Your task to perform on an android device: Search for "razer deathadder" on amazon, select the first entry, add it to the cart, then select checkout. Image 0: 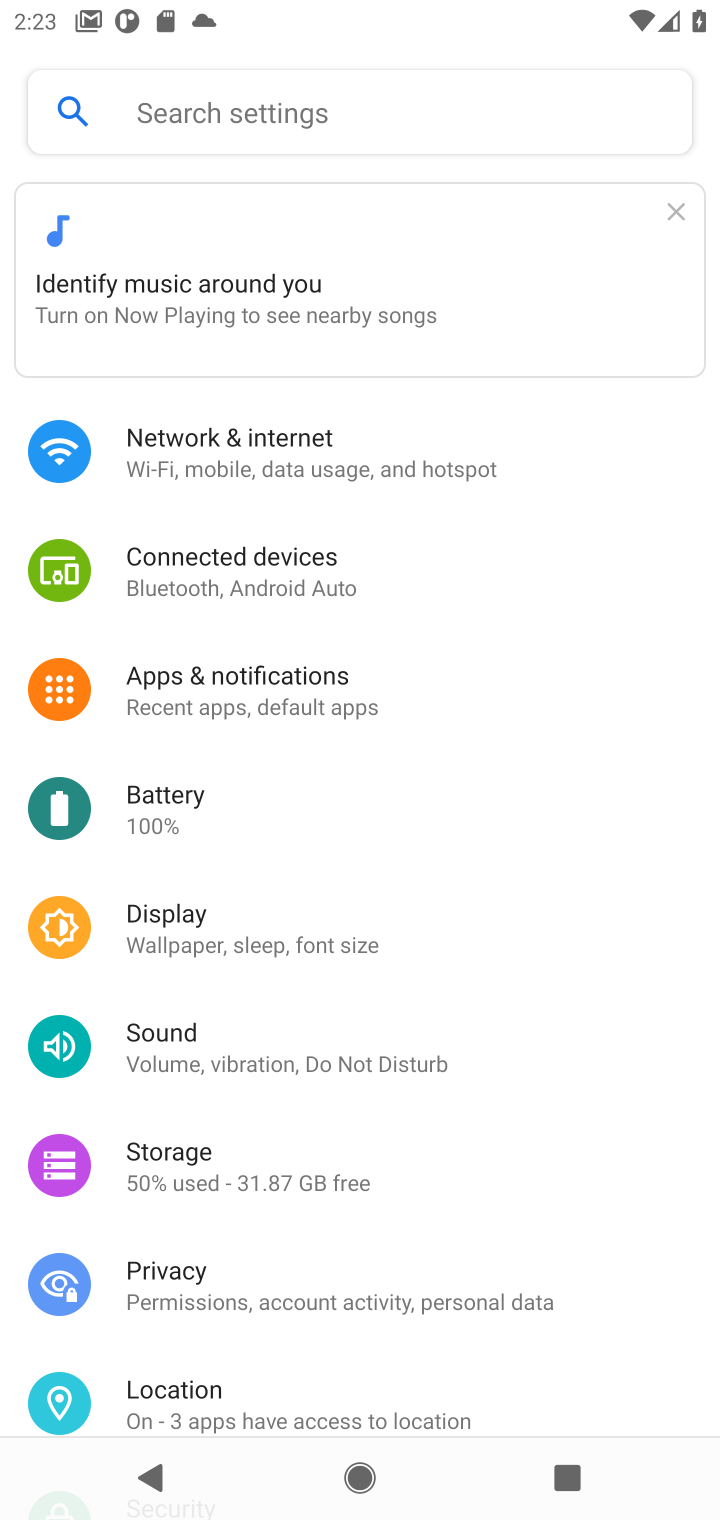
Step 0: press home button
Your task to perform on an android device: Search for "razer deathadder" on amazon, select the first entry, add it to the cart, then select checkout. Image 1: 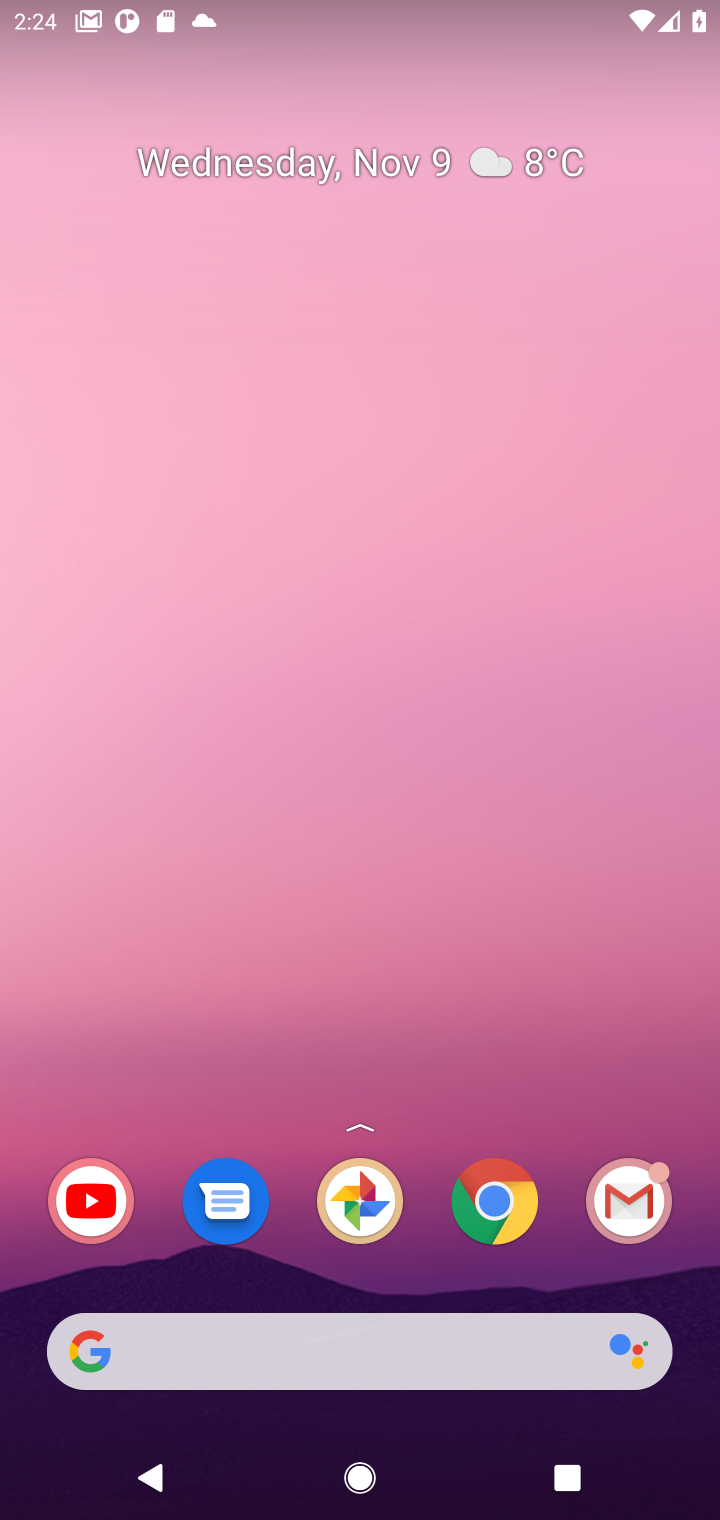
Step 1: click (296, 1356)
Your task to perform on an android device: Search for "razer deathadder" on amazon, select the first entry, add it to the cart, then select checkout. Image 2: 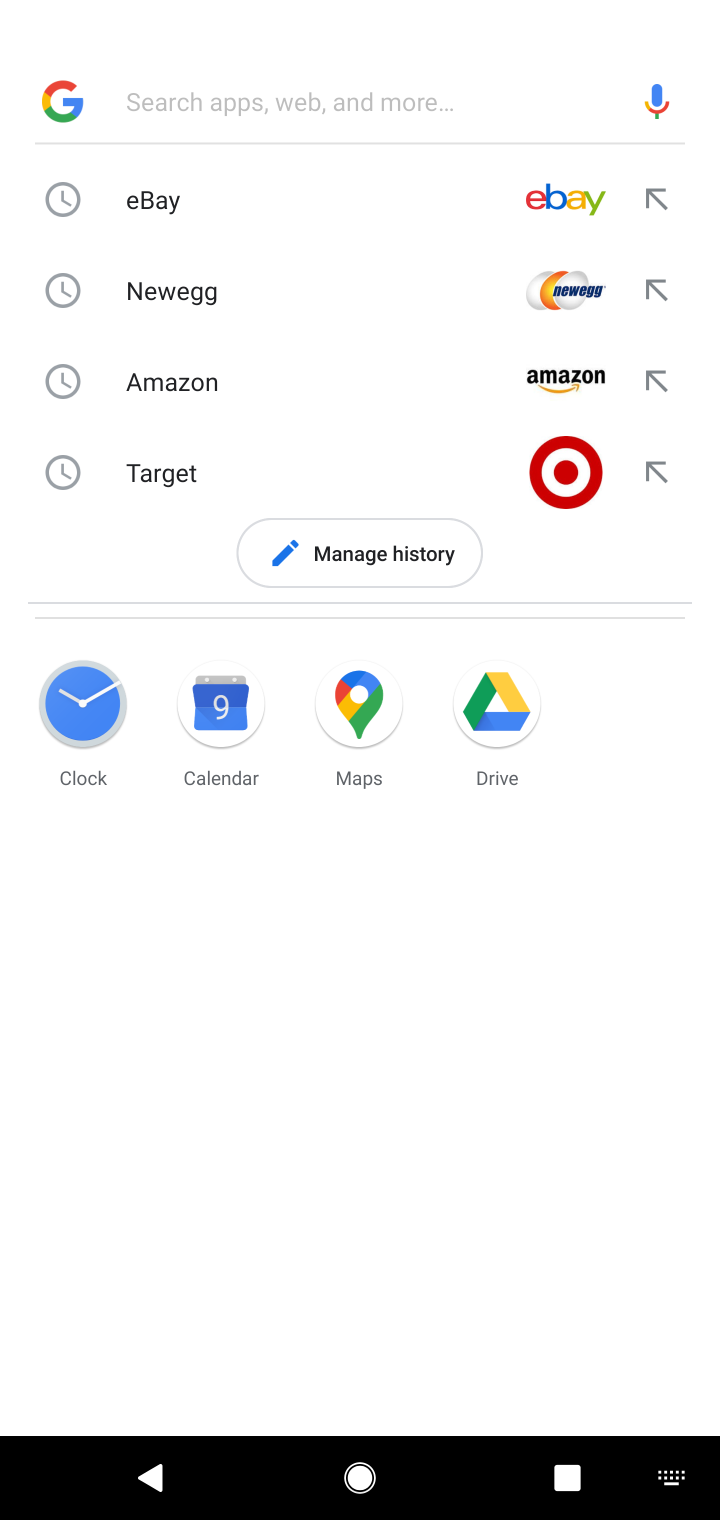
Step 2: click (188, 382)
Your task to perform on an android device: Search for "razer deathadder" on amazon, select the first entry, add it to the cart, then select checkout. Image 3: 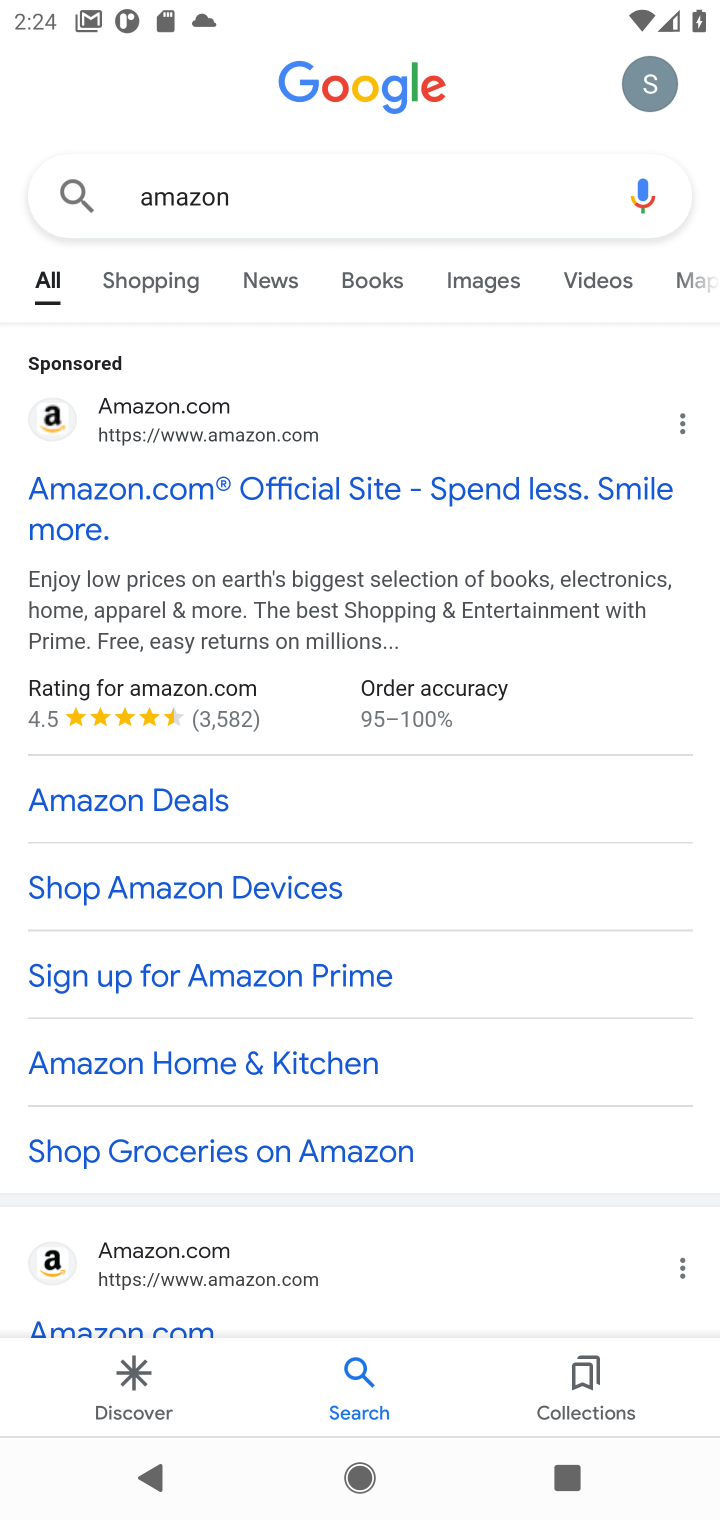
Step 3: click (150, 429)
Your task to perform on an android device: Search for "razer deathadder" on amazon, select the first entry, add it to the cart, then select checkout. Image 4: 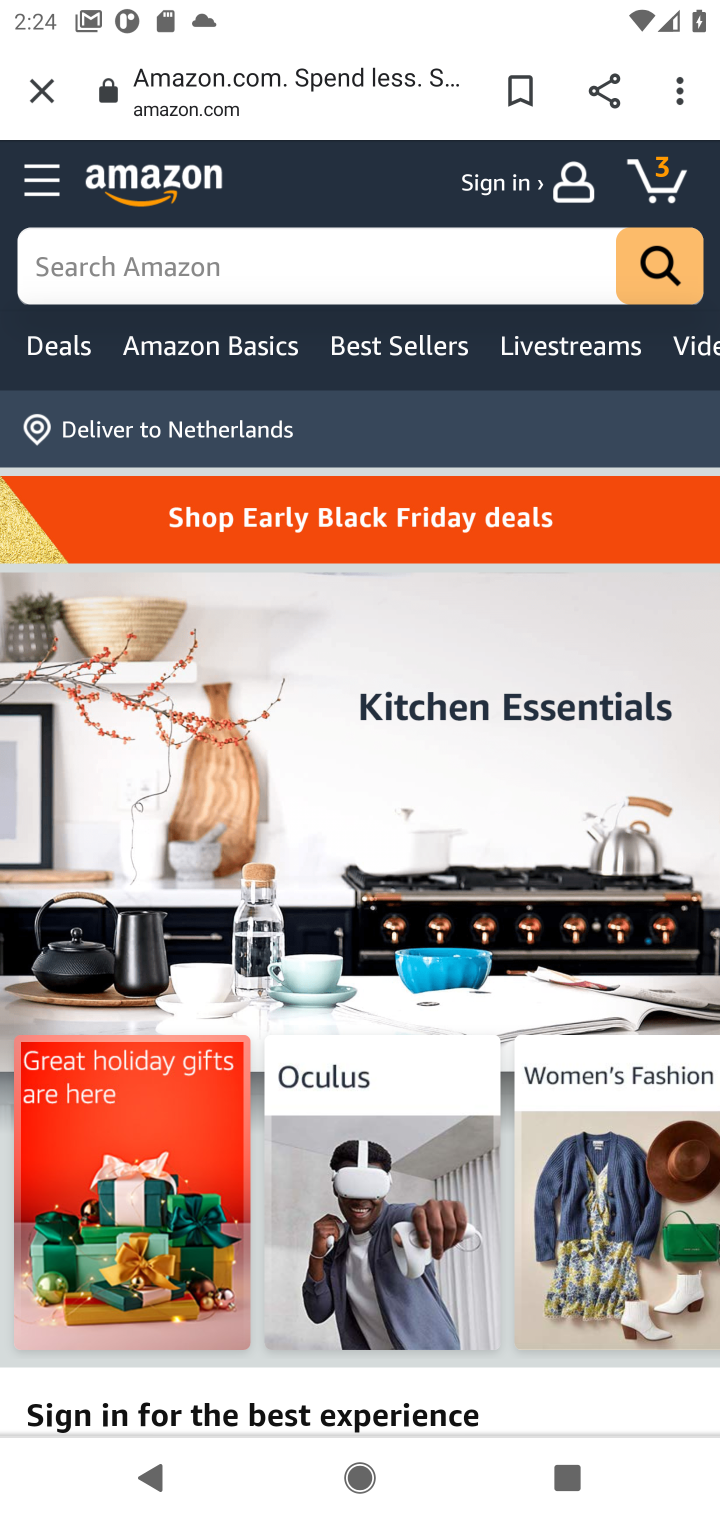
Step 4: click (279, 269)
Your task to perform on an android device: Search for "razer deathadder" on amazon, select the first entry, add it to the cart, then select checkout. Image 5: 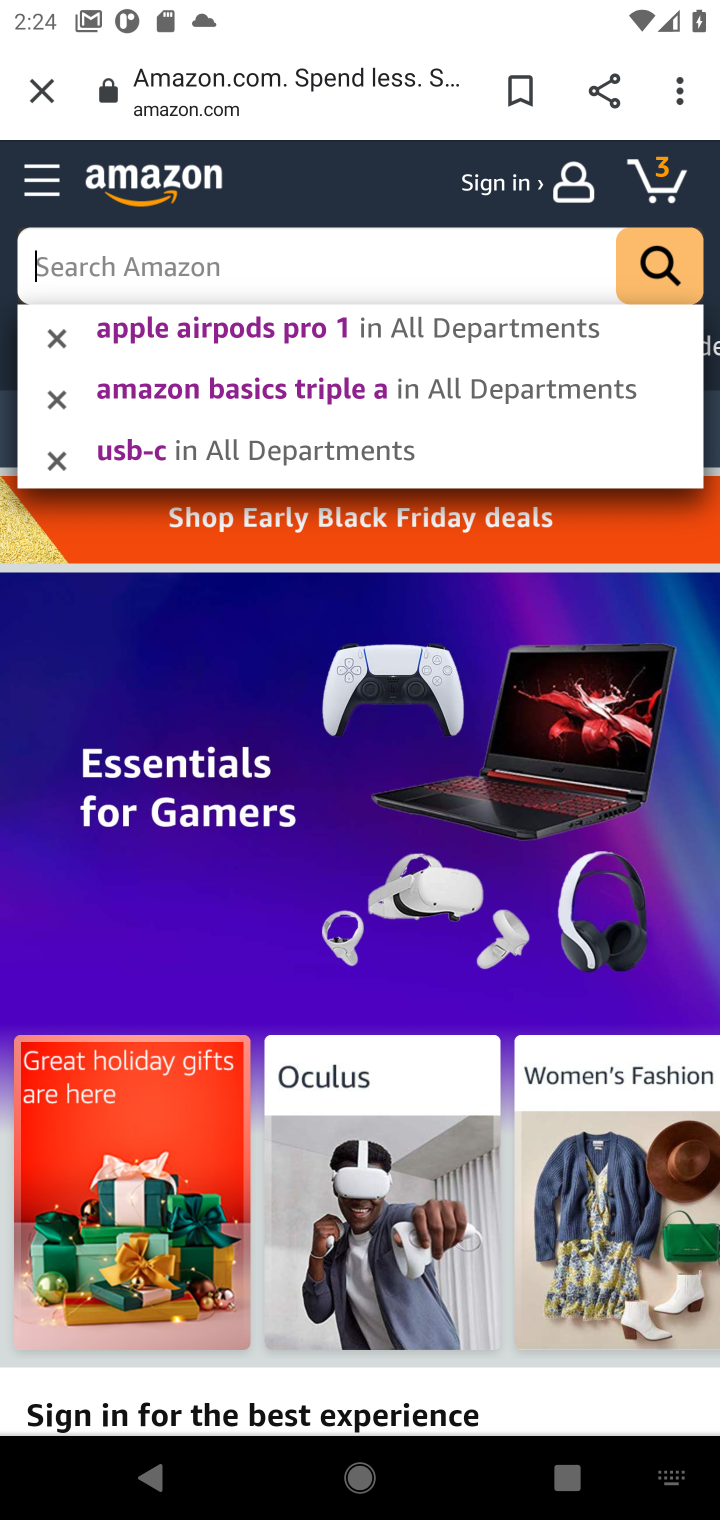
Step 5: type "razer deathadder"
Your task to perform on an android device: Search for "razer deathadder" on amazon, select the first entry, add it to the cart, then select checkout. Image 6: 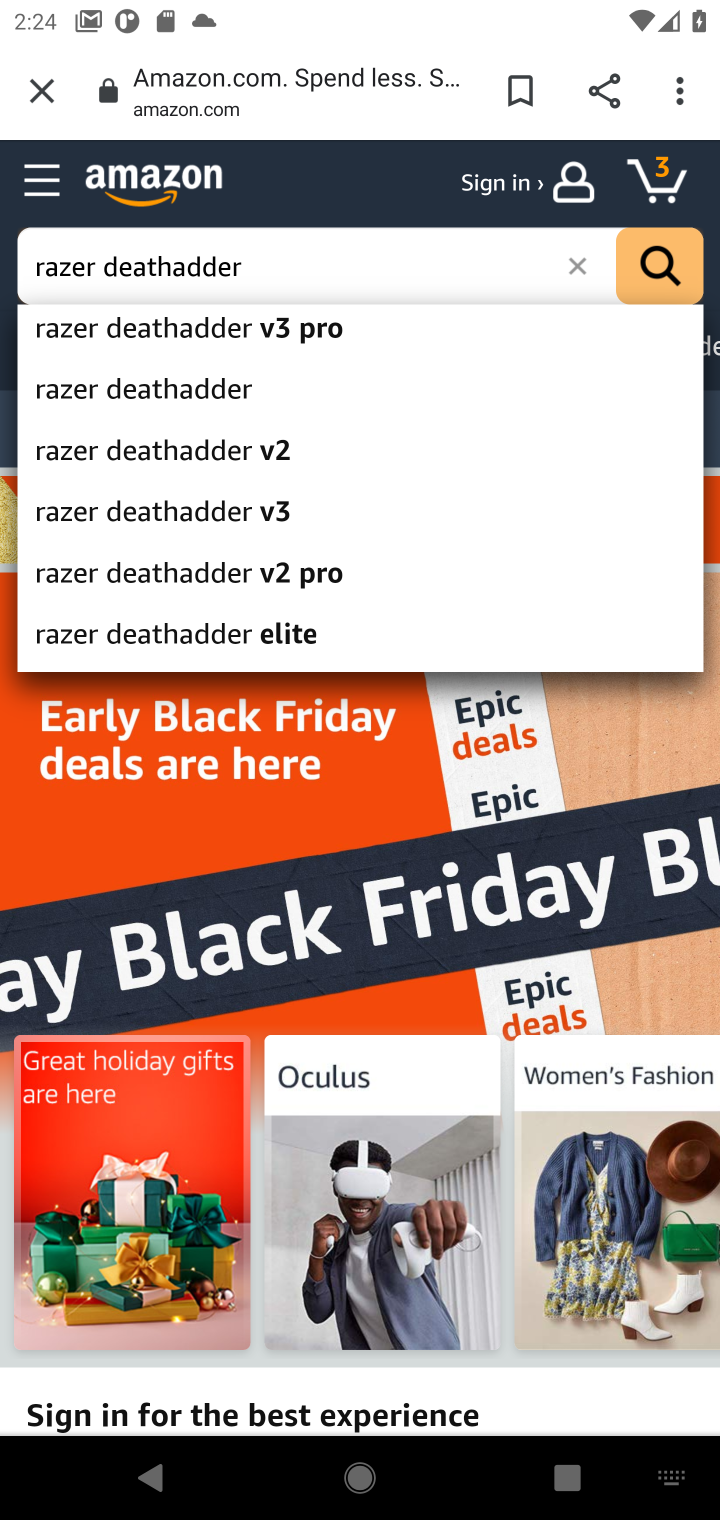
Step 6: click (226, 388)
Your task to perform on an android device: Search for "razer deathadder" on amazon, select the first entry, add it to the cart, then select checkout. Image 7: 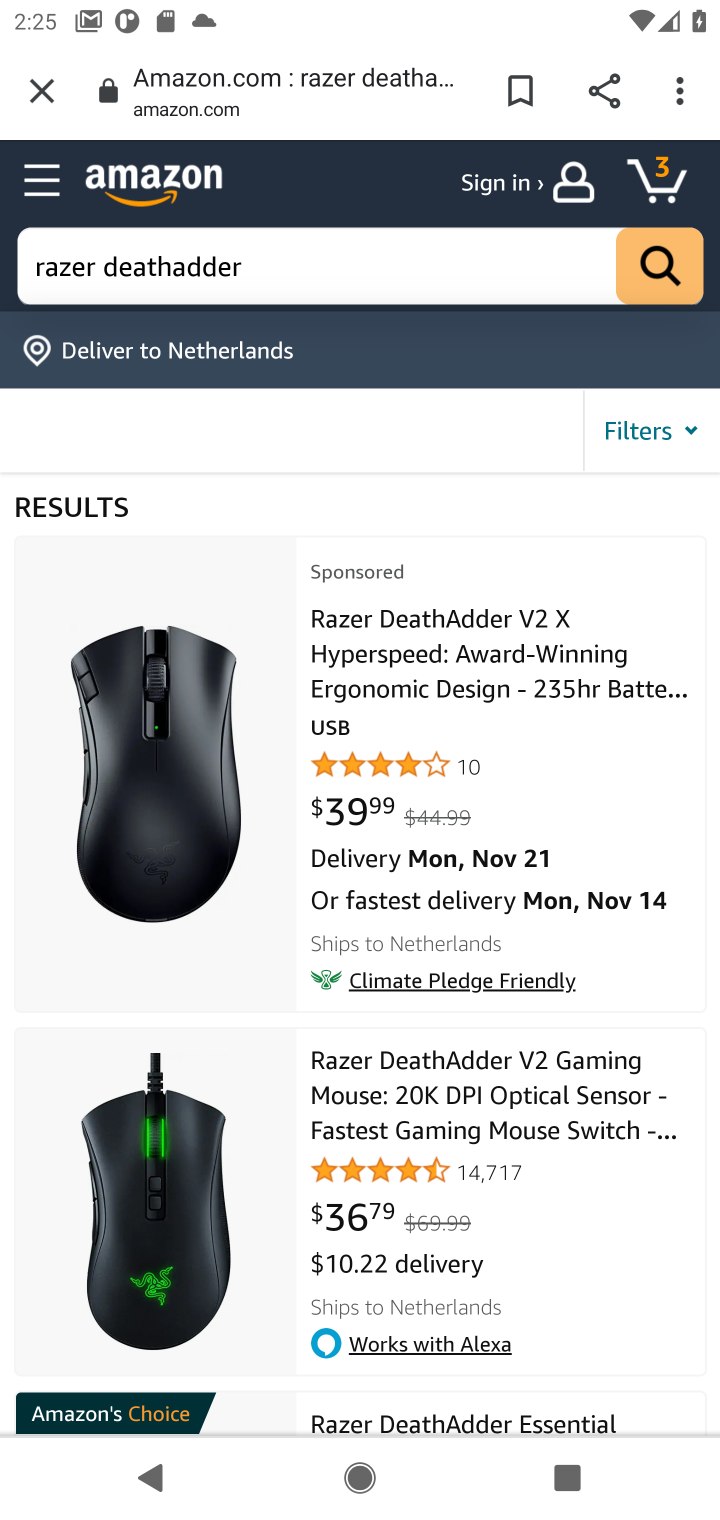
Step 7: click (332, 650)
Your task to perform on an android device: Search for "razer deathadder" on amazon, select the first entry, add it to the cart, then select checkout. Image 8: 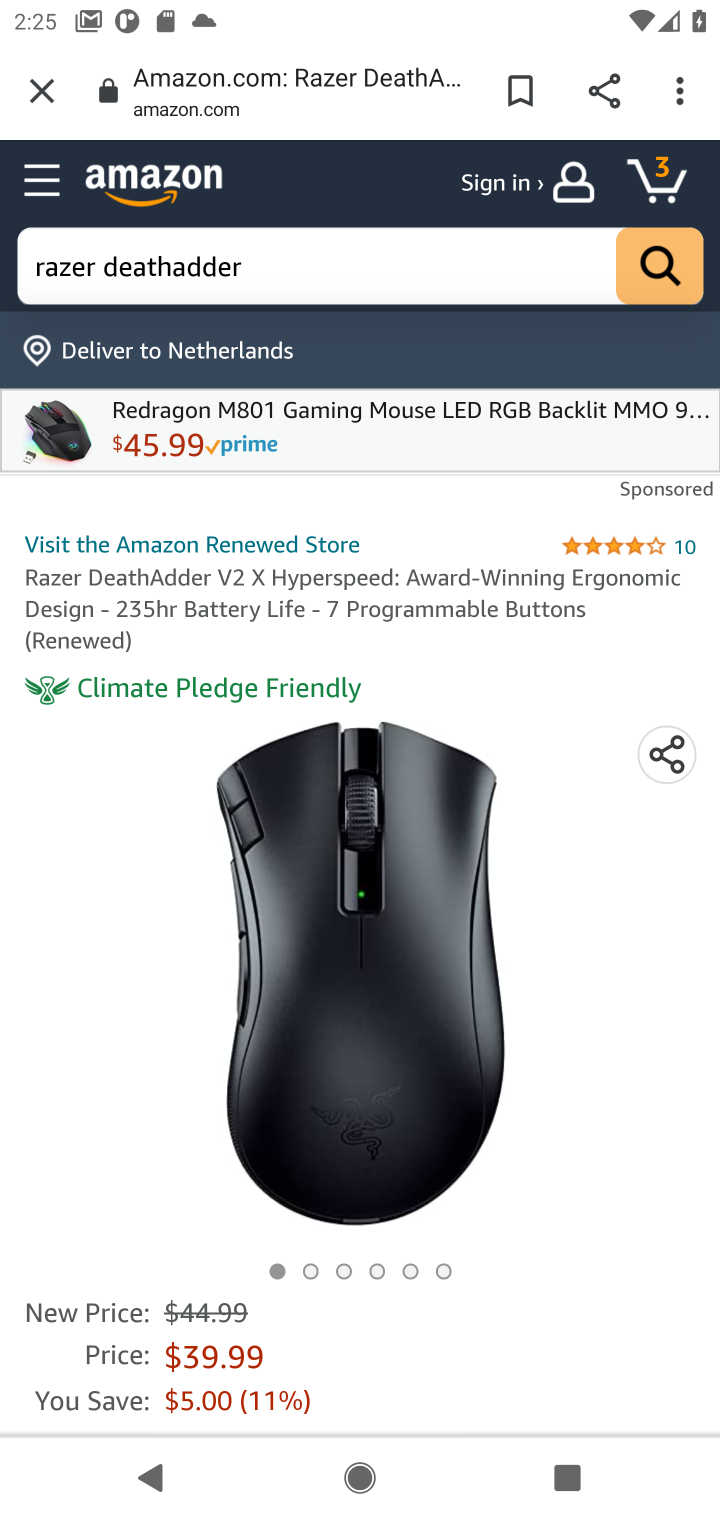
Step 8: click (357, 596)
Your task to perform on an android device: Search for "razer deathadder" on amazon, select the first entry, add it to the cart, then select checkout. Image 9: 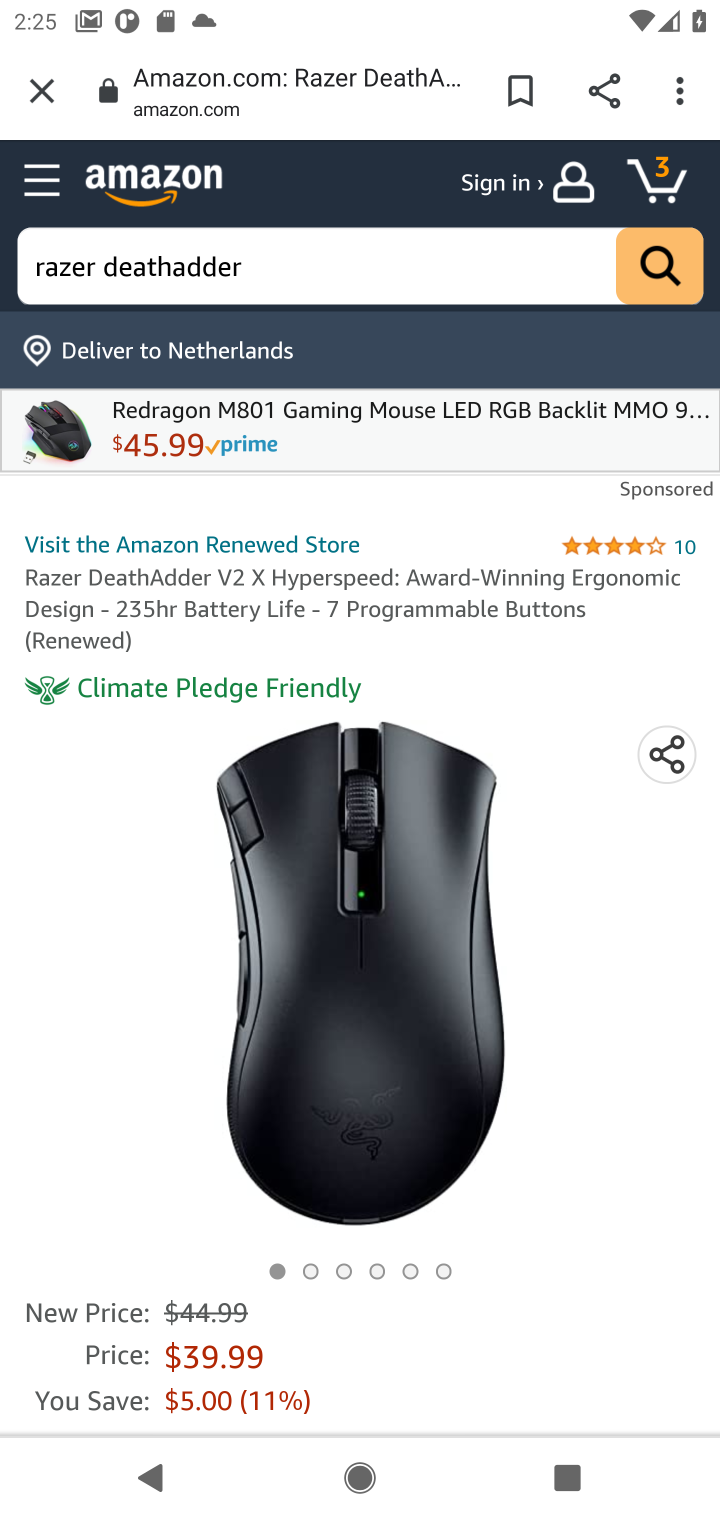
Step 9: click (335, 465)
Your task to perform on an android device: Search for "razer deathadder" on amazon, select the first entry, add it to the cart, then select checkout. Image 10: 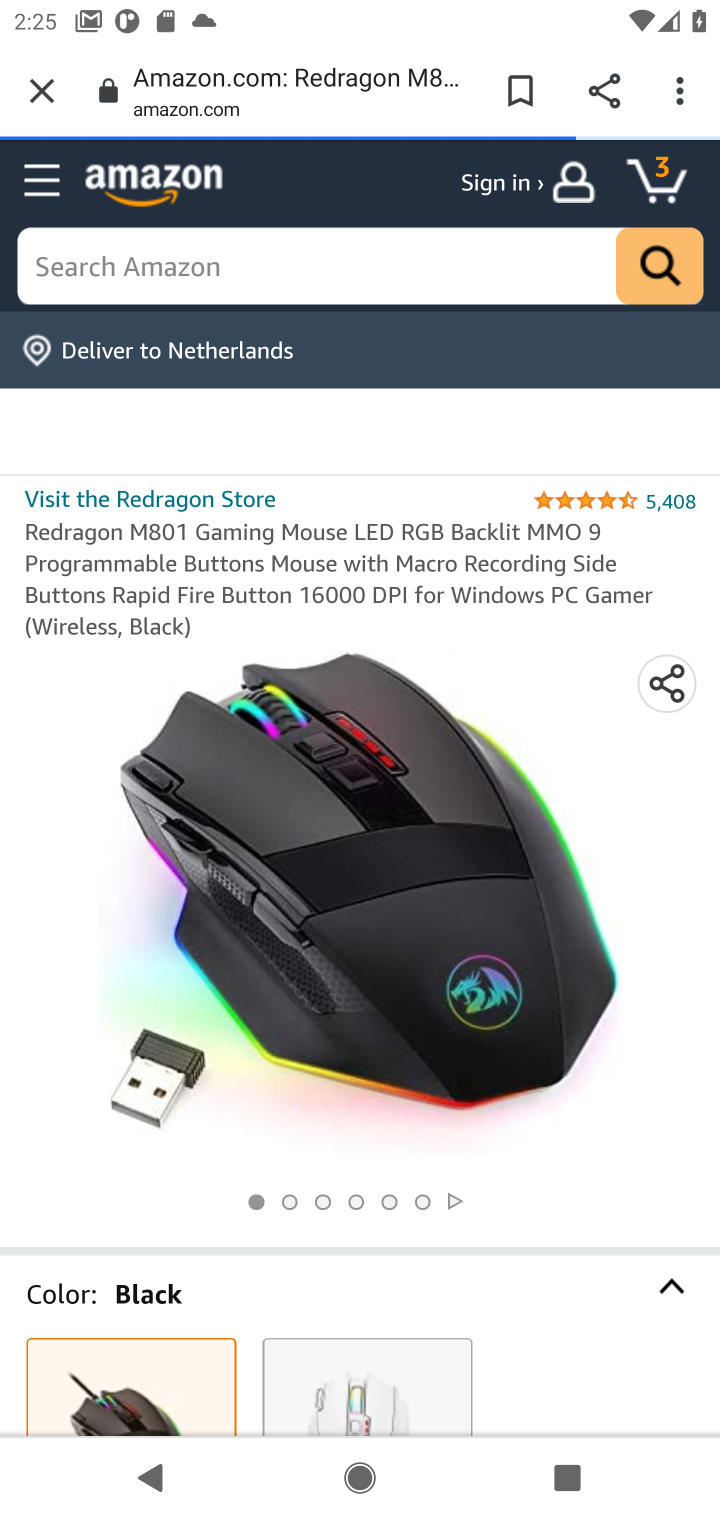
Step 10: drag from (314, 1134) to (442, 463)
Your task to perform on an android device: Search for "razer deathadder" on amazon, select the first entry, add it to the cart, then select checkout. Image 11: 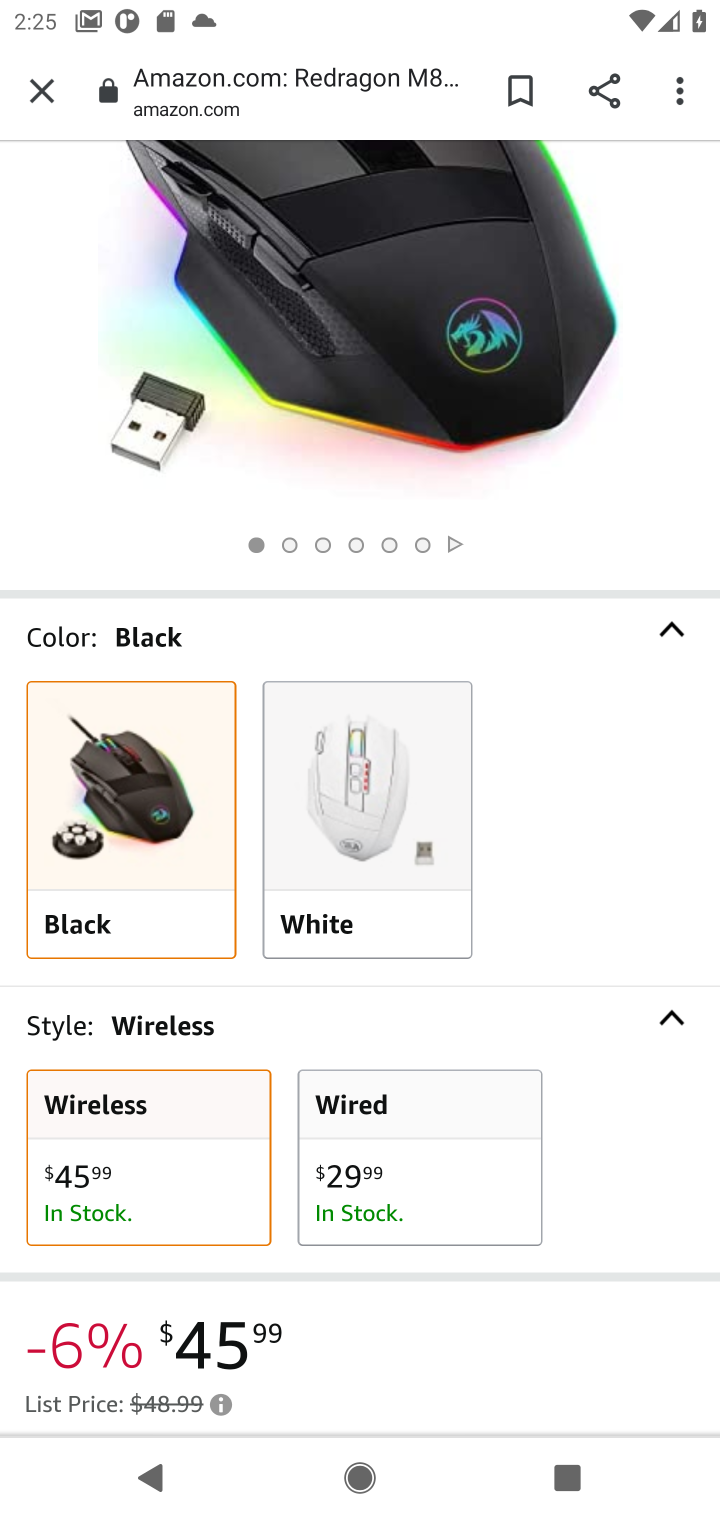
Step 11: drag from (409, 1348) to (409, 734)
Your task to perform on an android device: Search for "razer deathadder" on amazon, select the first entry, add it to the cart, then select checkout. Image 12: 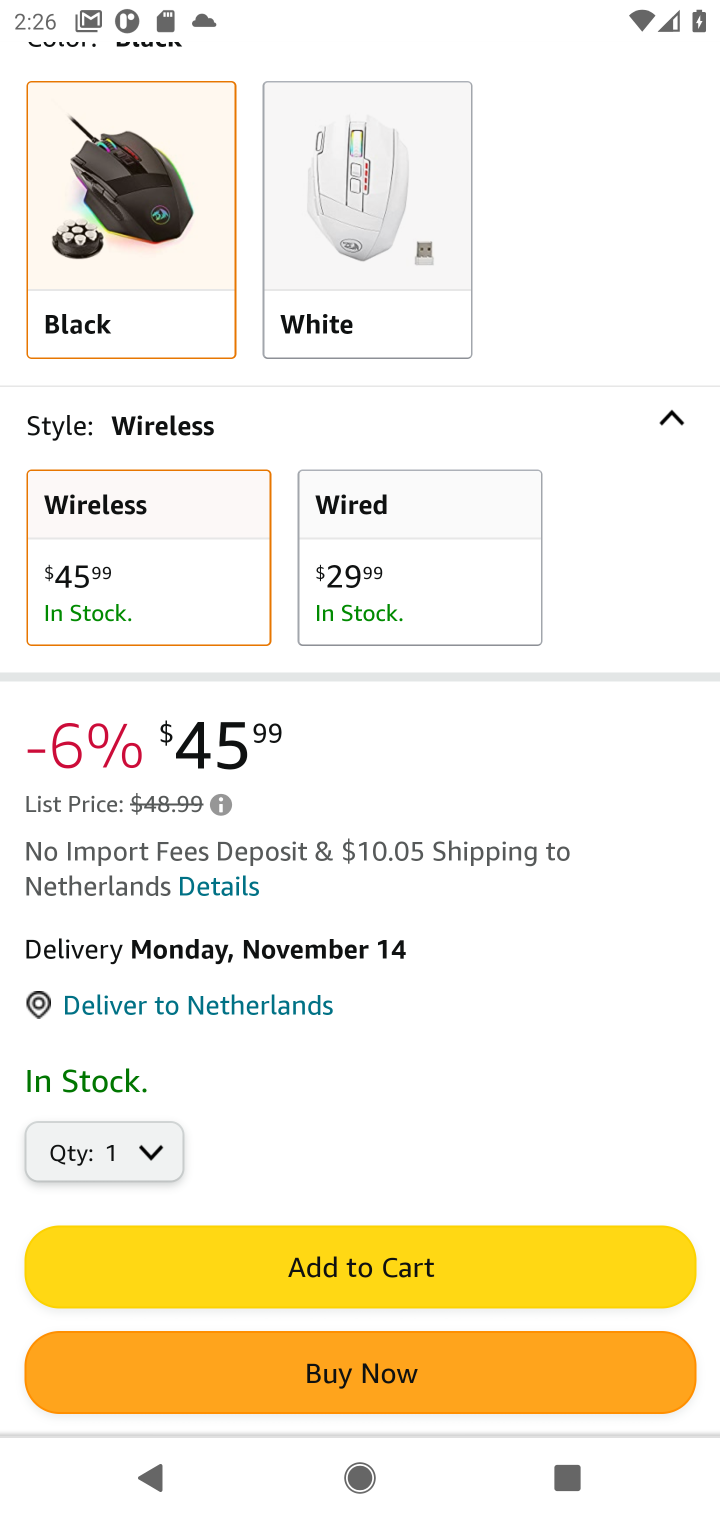
Step 12: click (368, 1270)
Your task to perform on an android device: Search for "razer deathadder" on amazon, select the first entry, add it to the cart, then select checkout. Image 13: 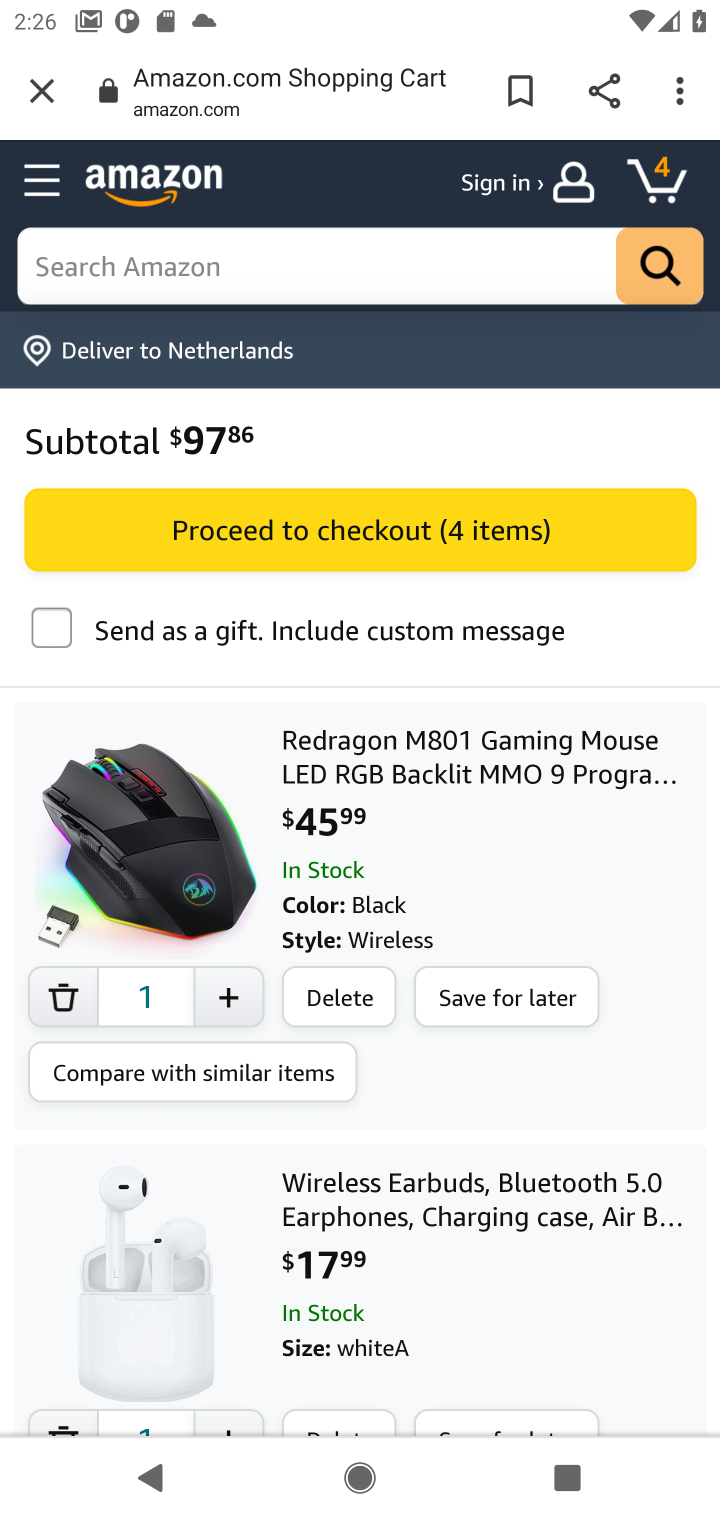
Step 13: click (349, 519)
Your task to perform on an android device: Search for "razer deathadder" on amazon, select the first entry, add it to the cart, then select checkout. Image 14: 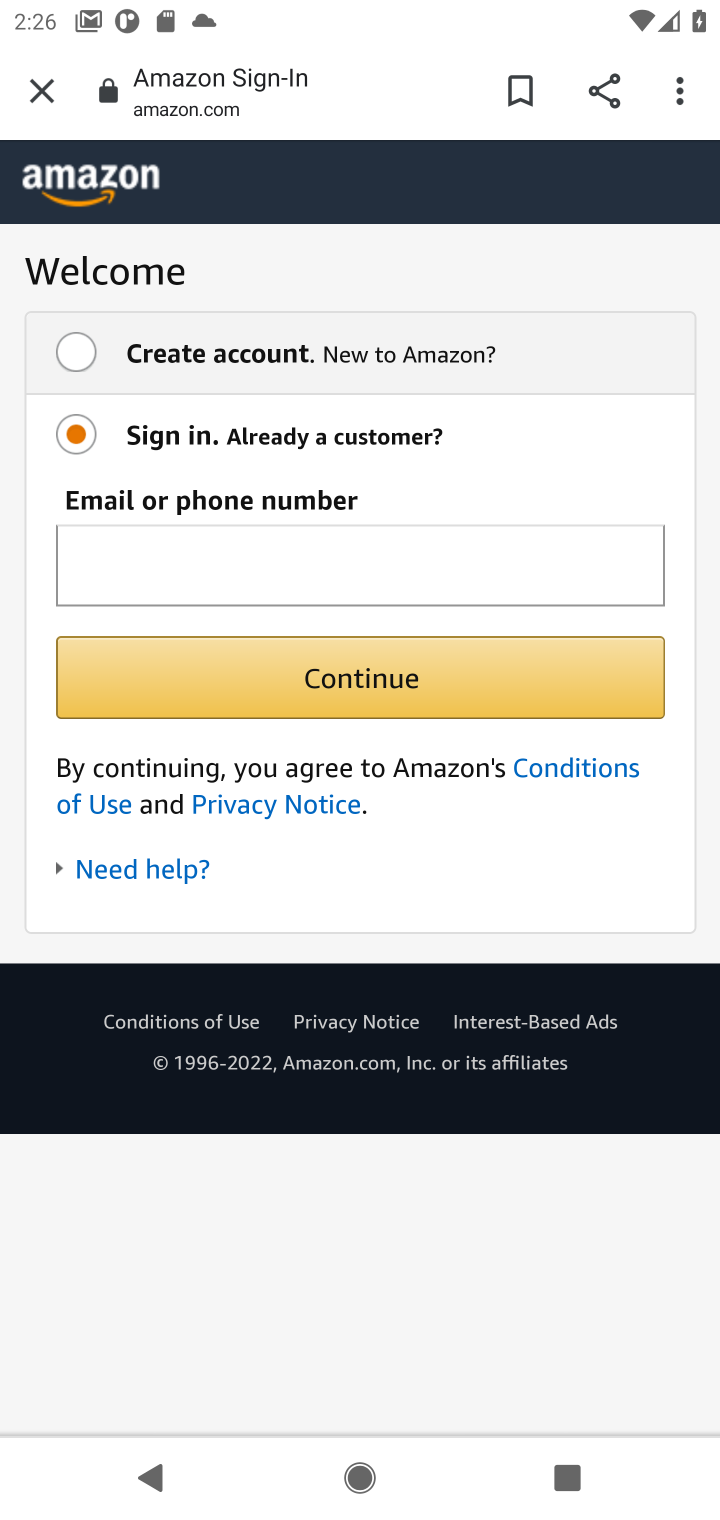
Step 14: task complete